Your task to perform on an android device: Go to sound settings Image 0: 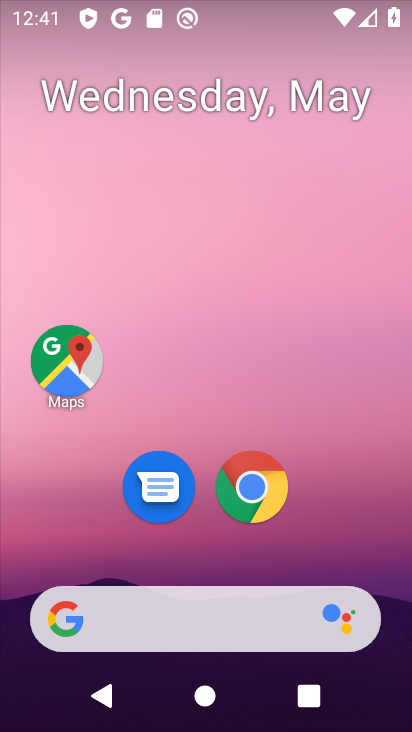
Step 0: drag from (200, 587) to (203, 6)
Your task to perform on an android device: Go to sound settings Image 1: 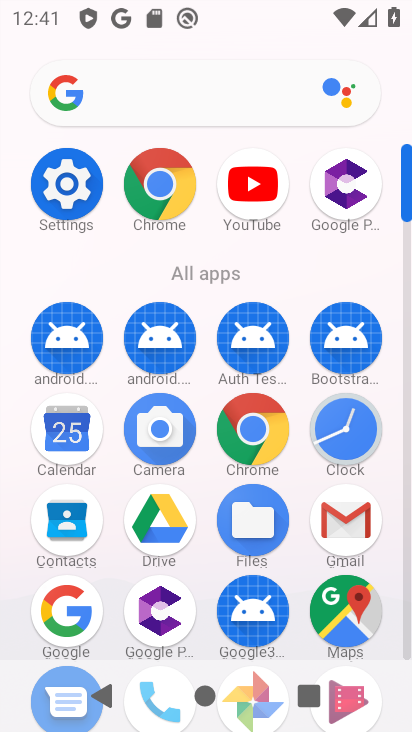
Step 1: click (81, 207)
Your task to perform on an android device: Go to sound settings Image 2: 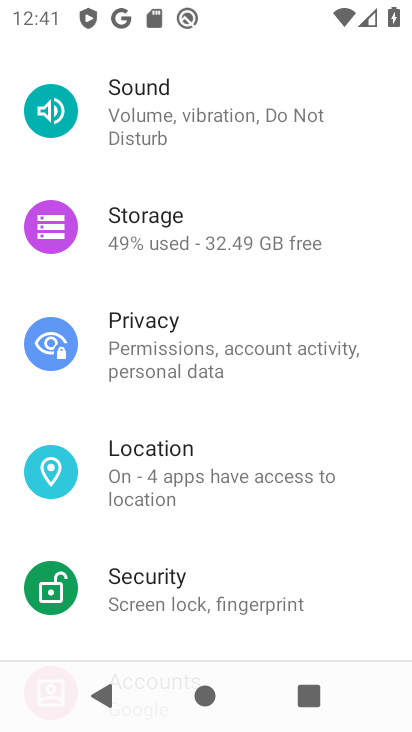
Step 2: click (183, 127)
Your task to perform on an android device: Go to sound settings Image 3: 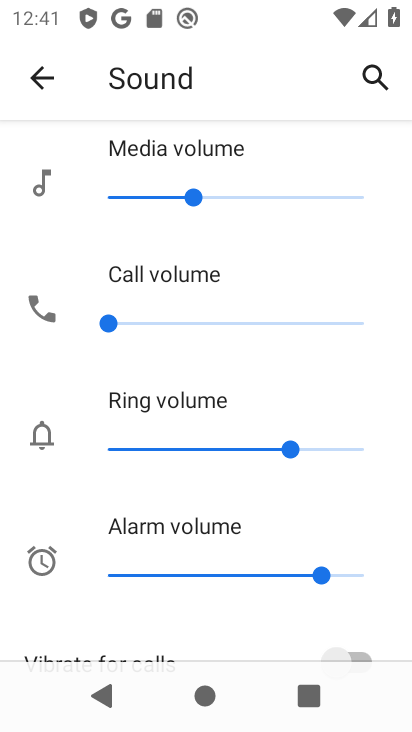
Step 3: task complete